Your task to perform on an android device: open app "The Home Depot" (install if not already installed), go to login, and select forgot password Image 0: 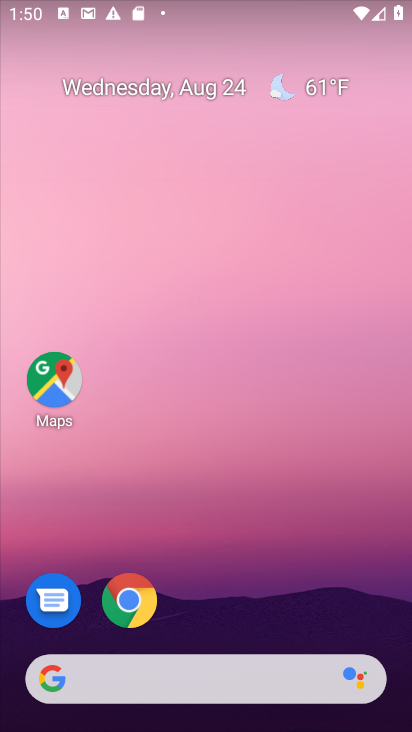
Step 0: drag from (245, 640) to (291, 6)
Your task to perform on an android device: open app "The Home Depot" (install if not already installed), go to login, and select forgot password Image 1: 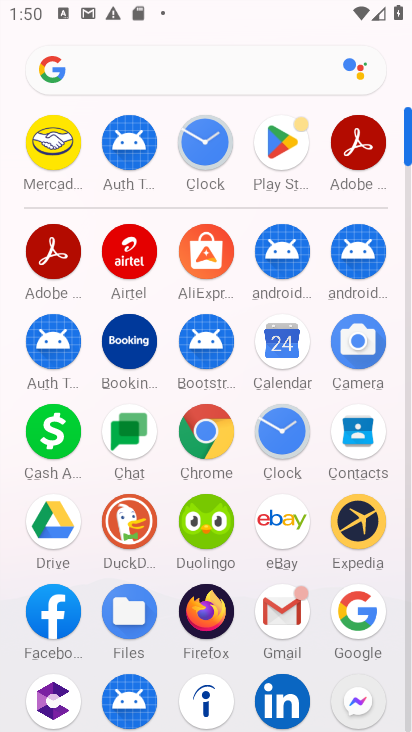
Step 1: click (274, 116)
Your task to perform on an android device: open app "The Home Depot" (install if not already installed), go to login, and select forgot password Image 2: 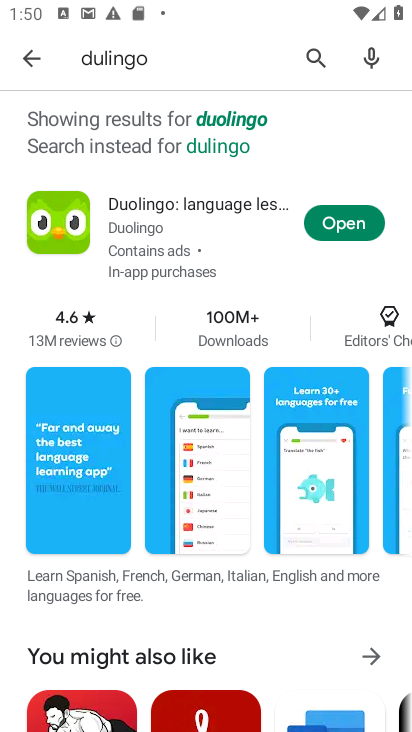
Step 2: click (316, 57)
Your task to perform on an android device: open app "The Home Depot" (install if not already installed), go to login, and select forgot password Image 3: 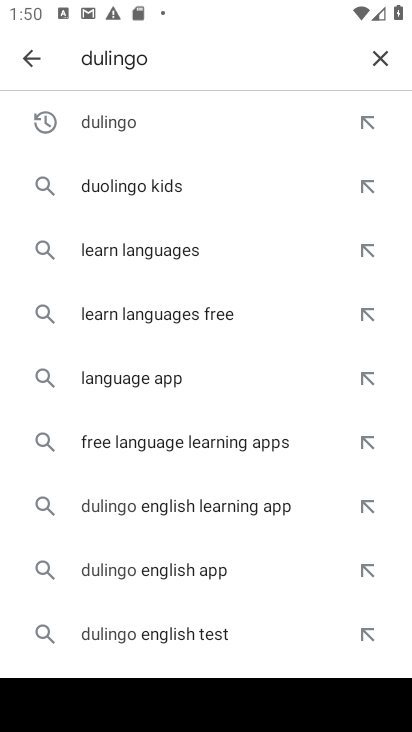
Step 3: click (373, 57)
Your task to perform on an android device: open app "The Home Depot" (install if not already installed), go to login, and select forgot password Image 4: 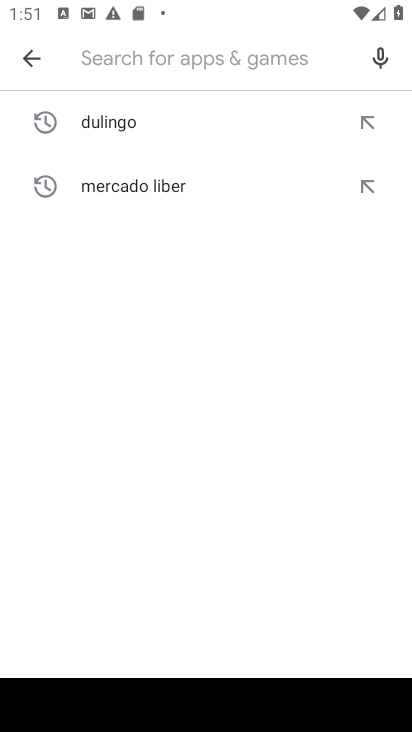
Step 4: type "the home depot"
Your task to perform on an android device: open app "The Home Depot" (install if not already installed), go to login, and select forgot password Image 5: 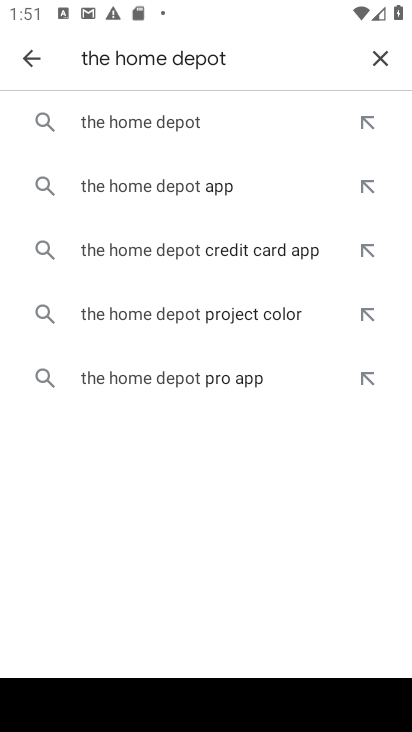
Step 5: click (115, 116)
Your task to perform on an android device: open app "The Home Depot" (install if not already installed), go to login, and select forgot password Image 6: 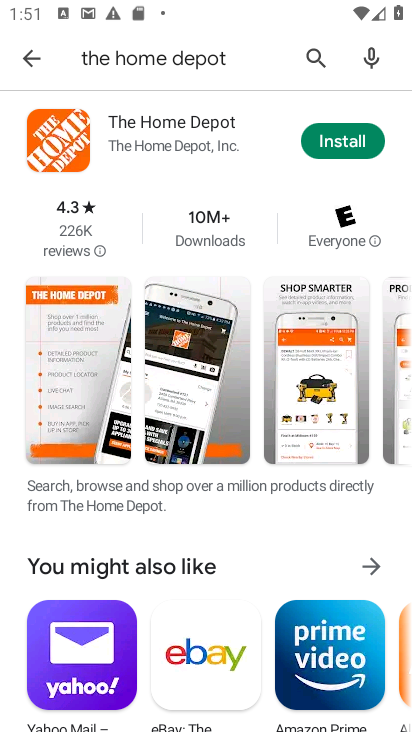
Step 6: click (339, 132)
Your task to perform on an android device: open app "The Home Depot" (install if not already installed), go to login, and select forgot password Image 7: 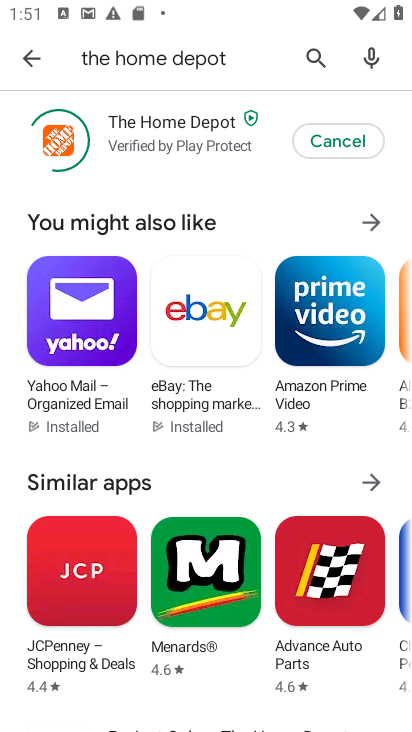
Step 7: task complete